Your task to perform on an android device: install app "Pinterest" Image 0: 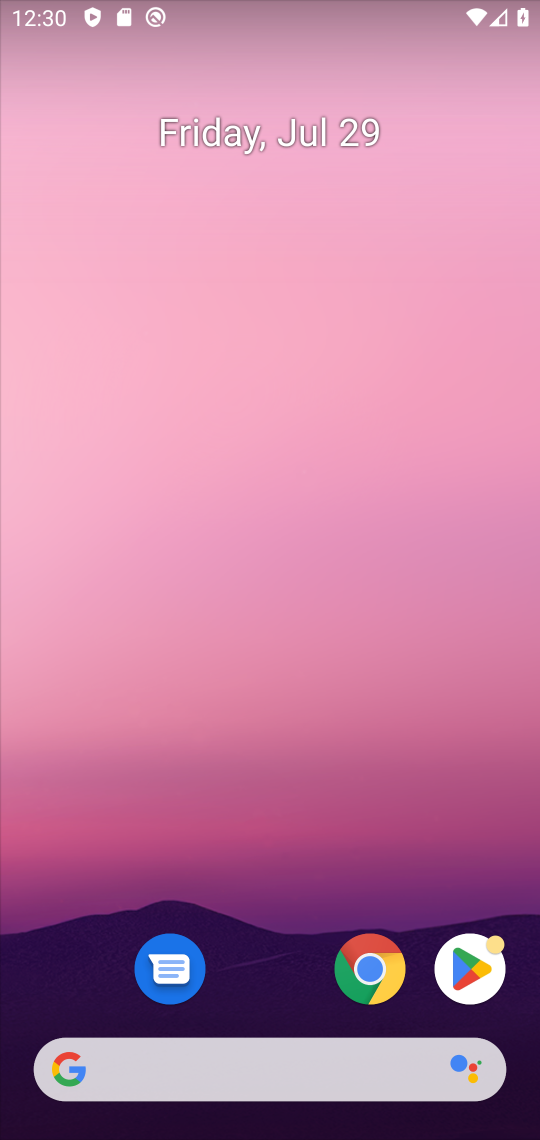
Step 0: click (495, 936)
Your task to perform on an android device: install app "Pinterest" Image 1: 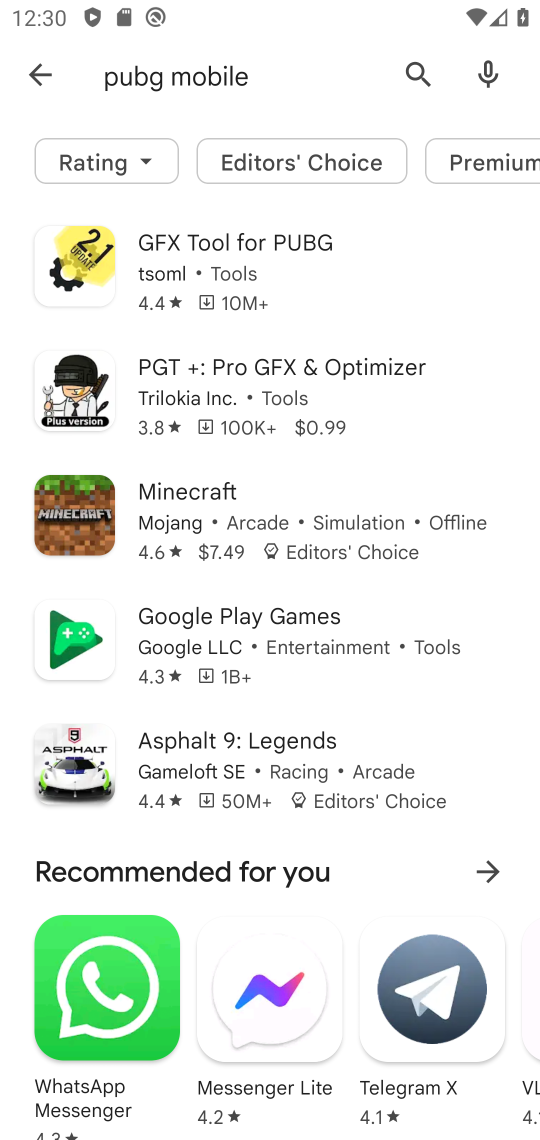
Step 1: click (416, 68)
Your task to perform on an android device: install app "Pinterest" Image 2: 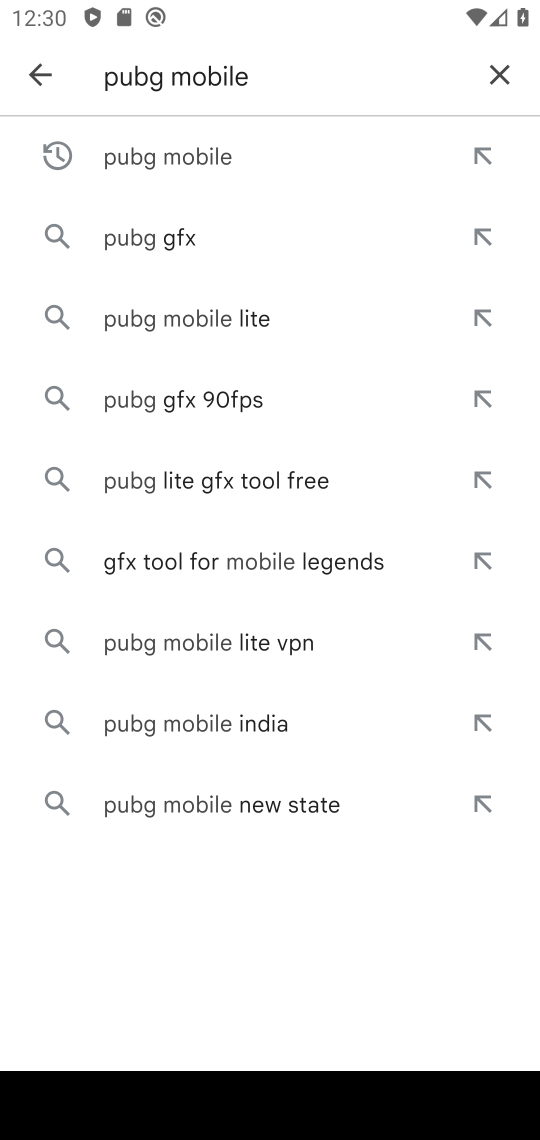
Step 2: click (492, 78)
Your task to perform on an android device: install app "Pinterest" Image 3: 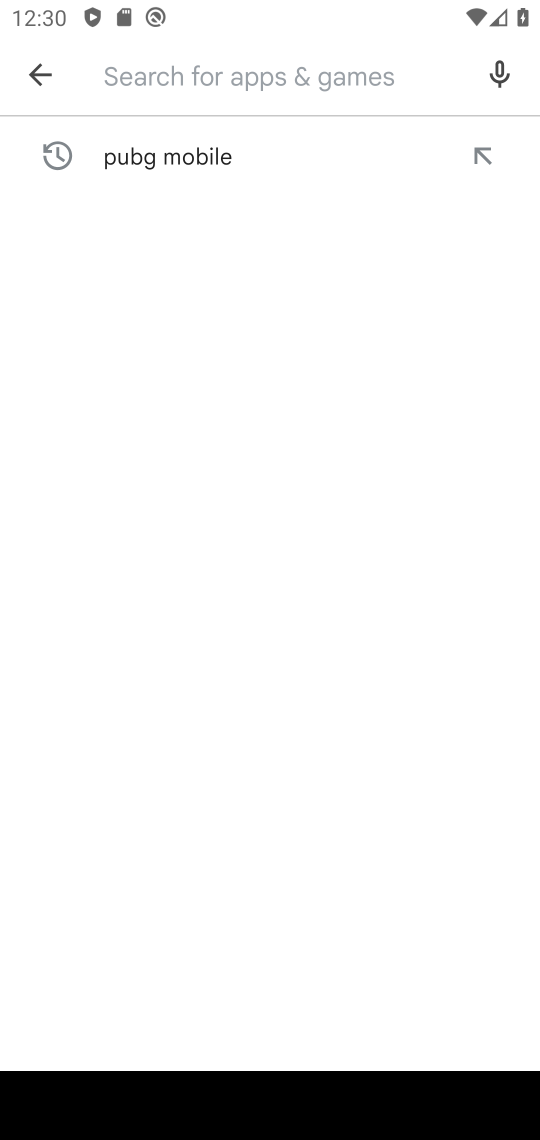
Step 3: type "pintrest"
Your task to perform on an android device: install app "Pinterest" Image 4: 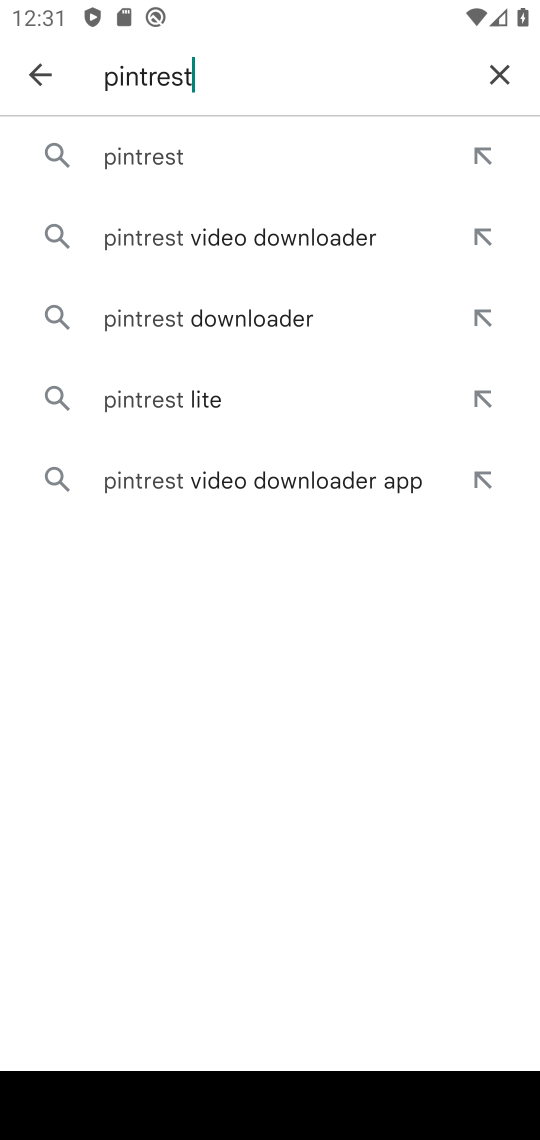
Step 4: click (176, 144)
Your task to perform on an android device: install app "Pinterest" Image 5: 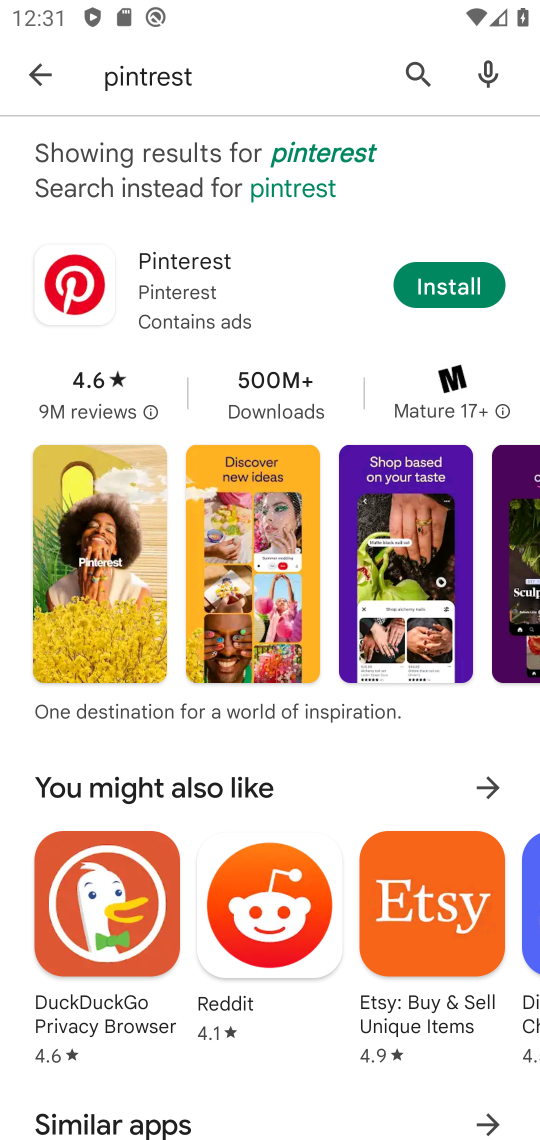
Step 5: click (431, 281)
Your task to perform on an android device: install app "Pinterest" Image 6: 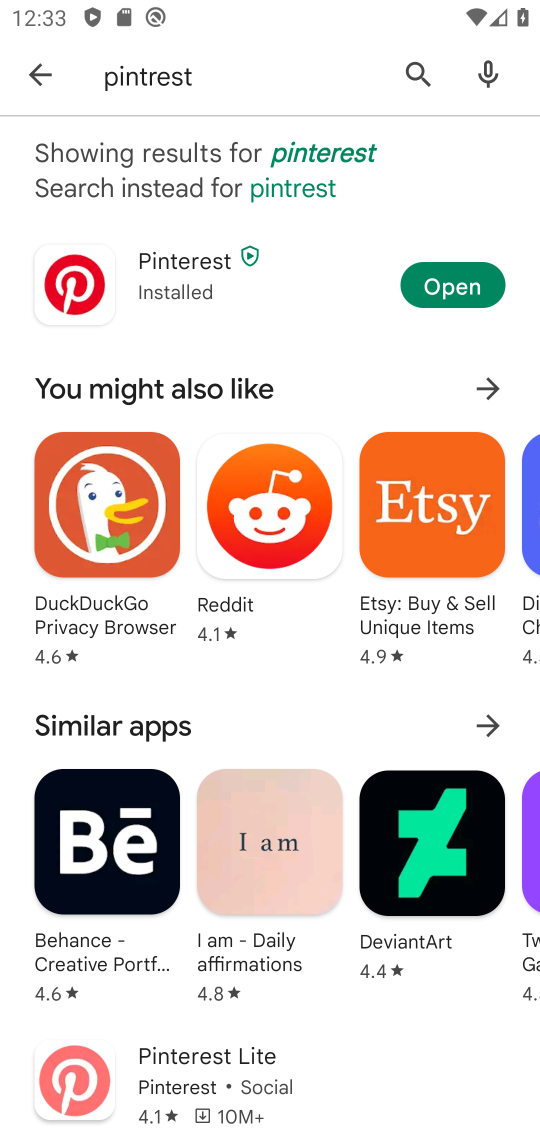
Step 6: task complete